Your task to perform on an android device: Add logitech g933 to the cart on amazon.com Image 0: 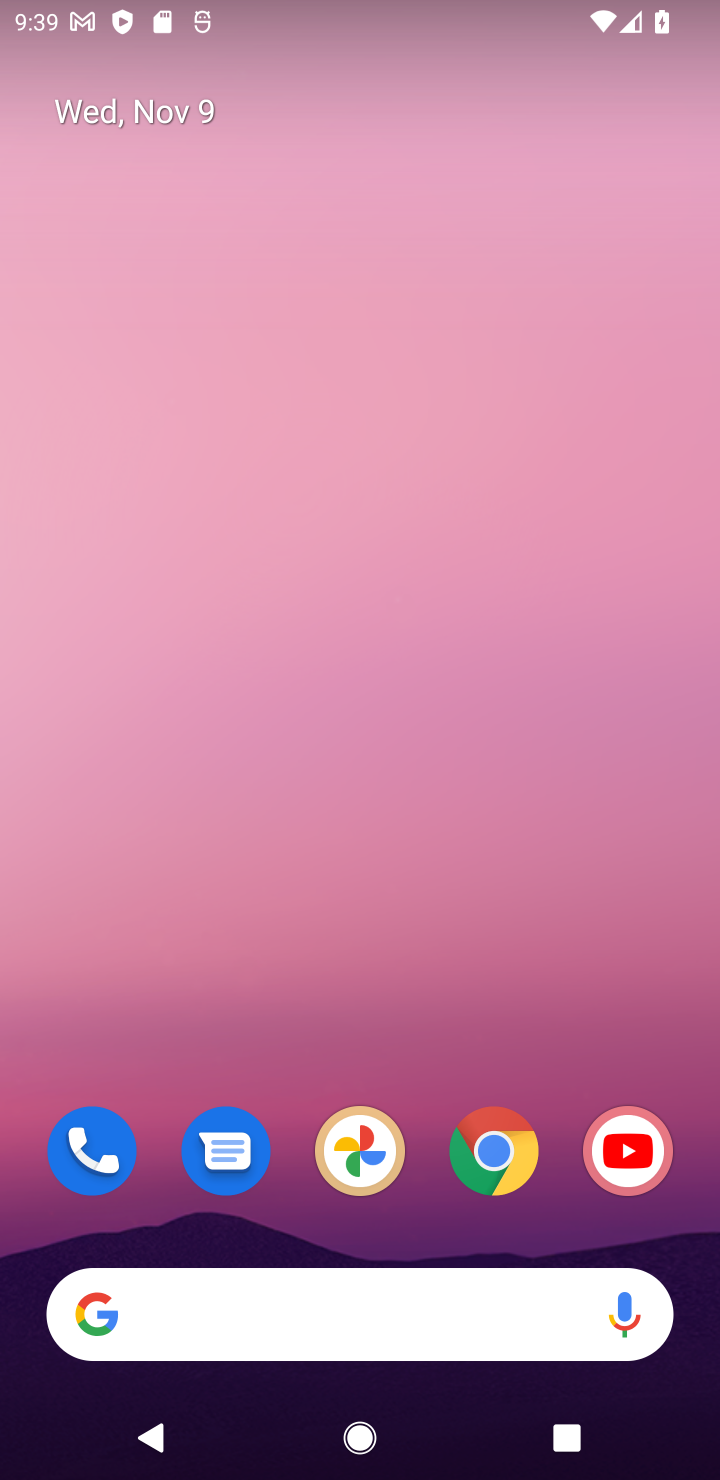
Step 0: click (510, 1176)
Your task to perform on an android device: Add logitech g933 to the cart on amazon.com Image 1: 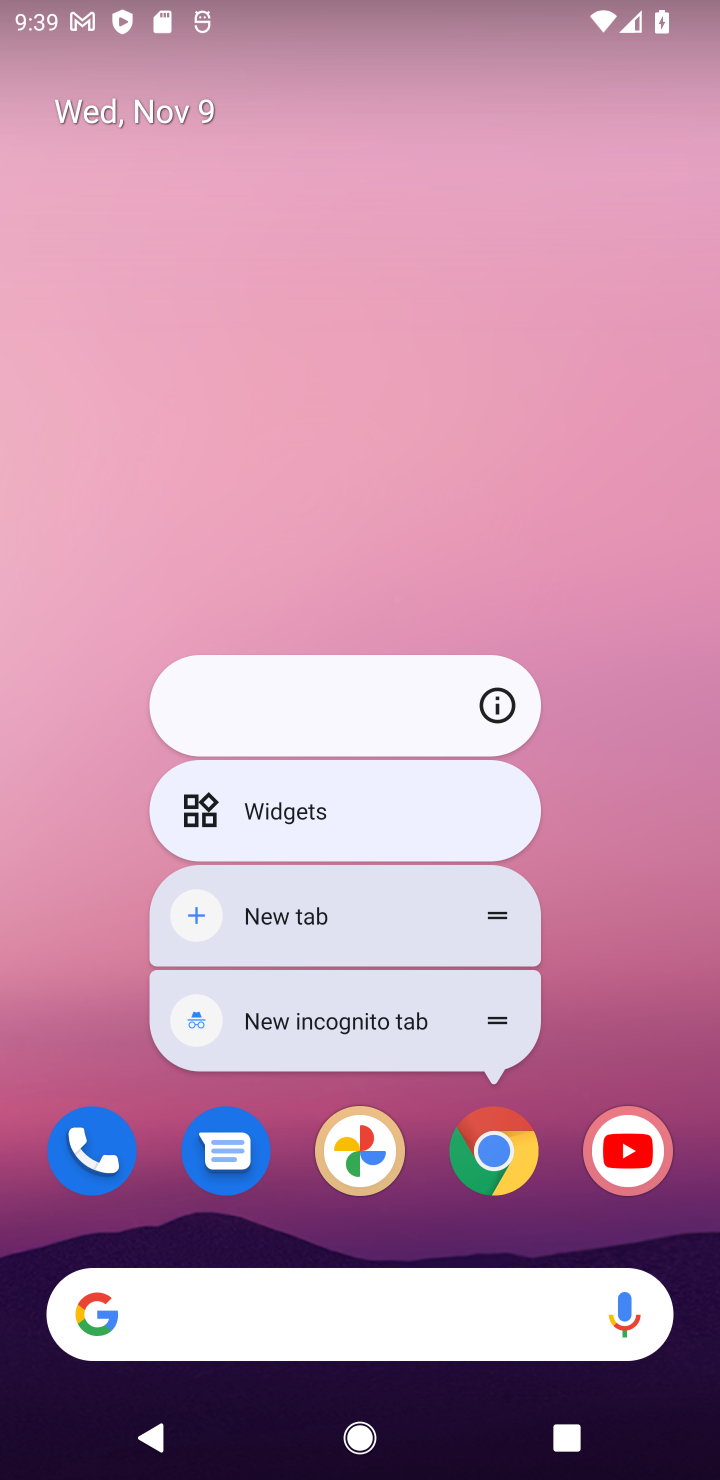
Step 1: click (510, 1176)
Your task to perform on an android device: Add logitech g933 to the cart on amazon.com Image 2: 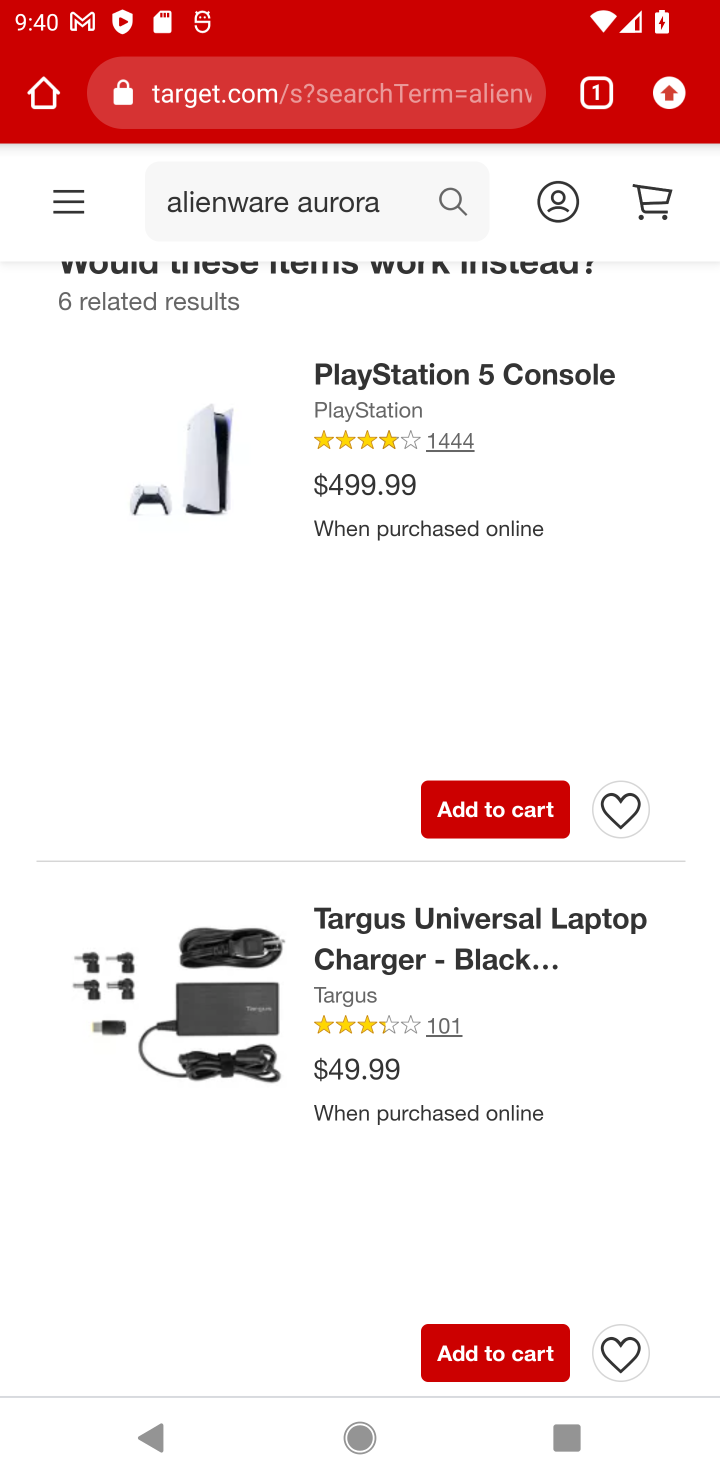
Step 2: click (417, 90)
Your task to perform on an android device: Add logitech g933 to the cart on amazon.com Image 3: 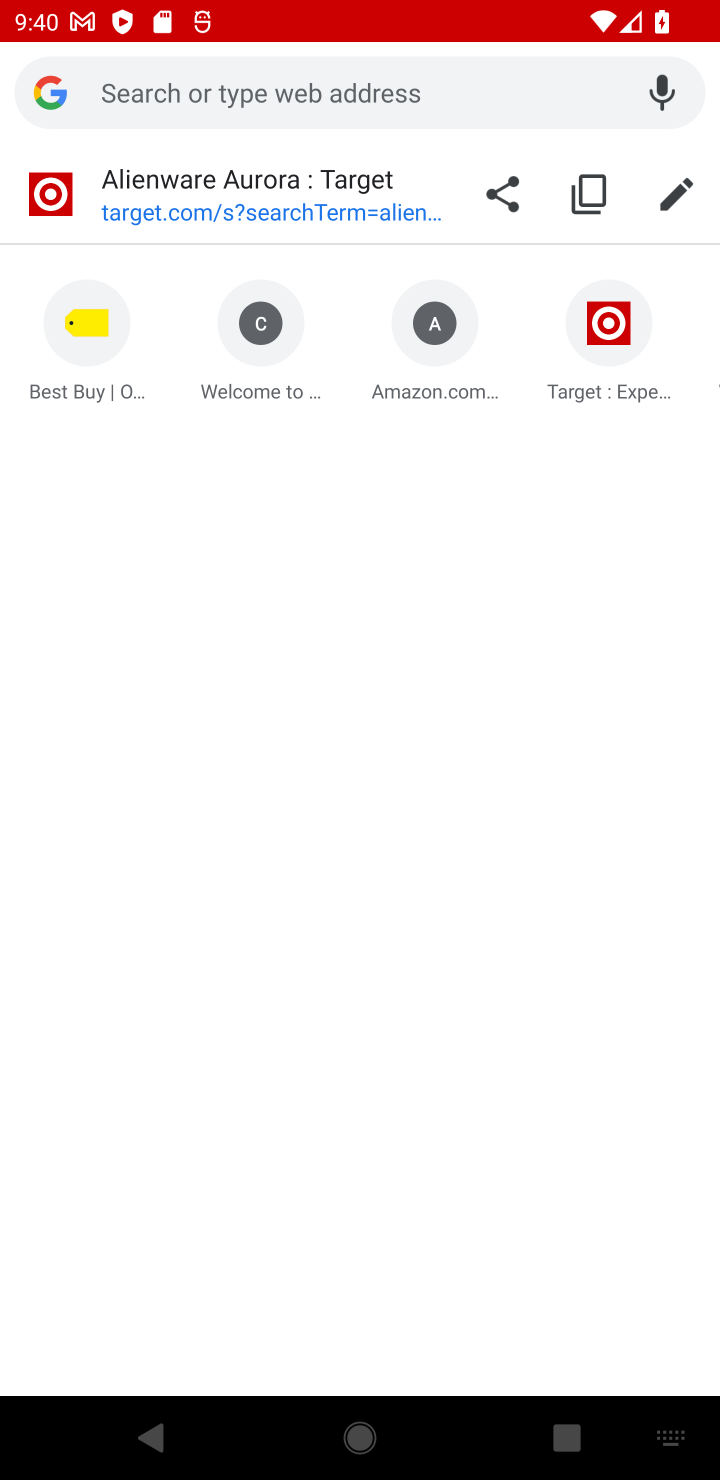
Step 3: type "amazon.com"
Your task to perform on an android device: Add logitech g933 to the cart on amazon.com Image 4: 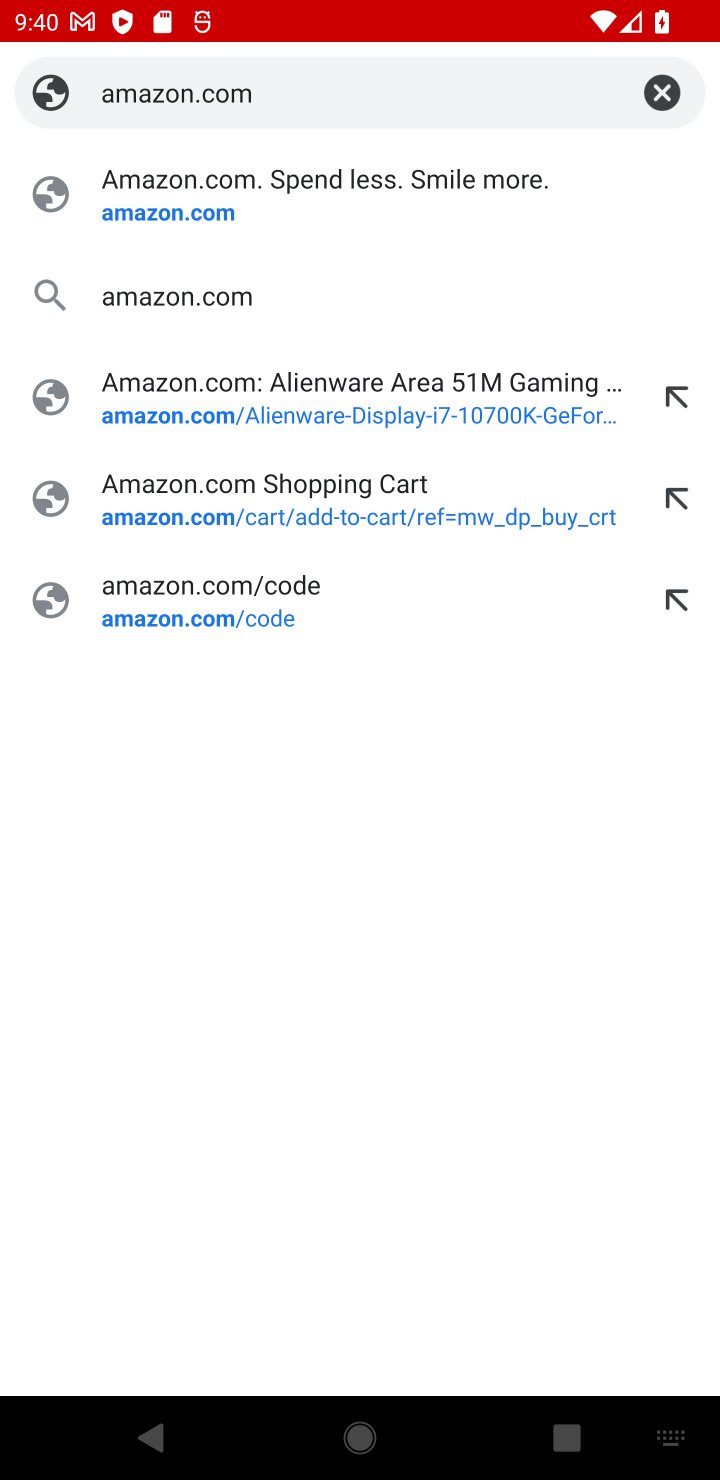
Step 4: click (149, 306)
Your task to perform on an android device: Add logitech g933 to the cart on amazon.com Image 5: 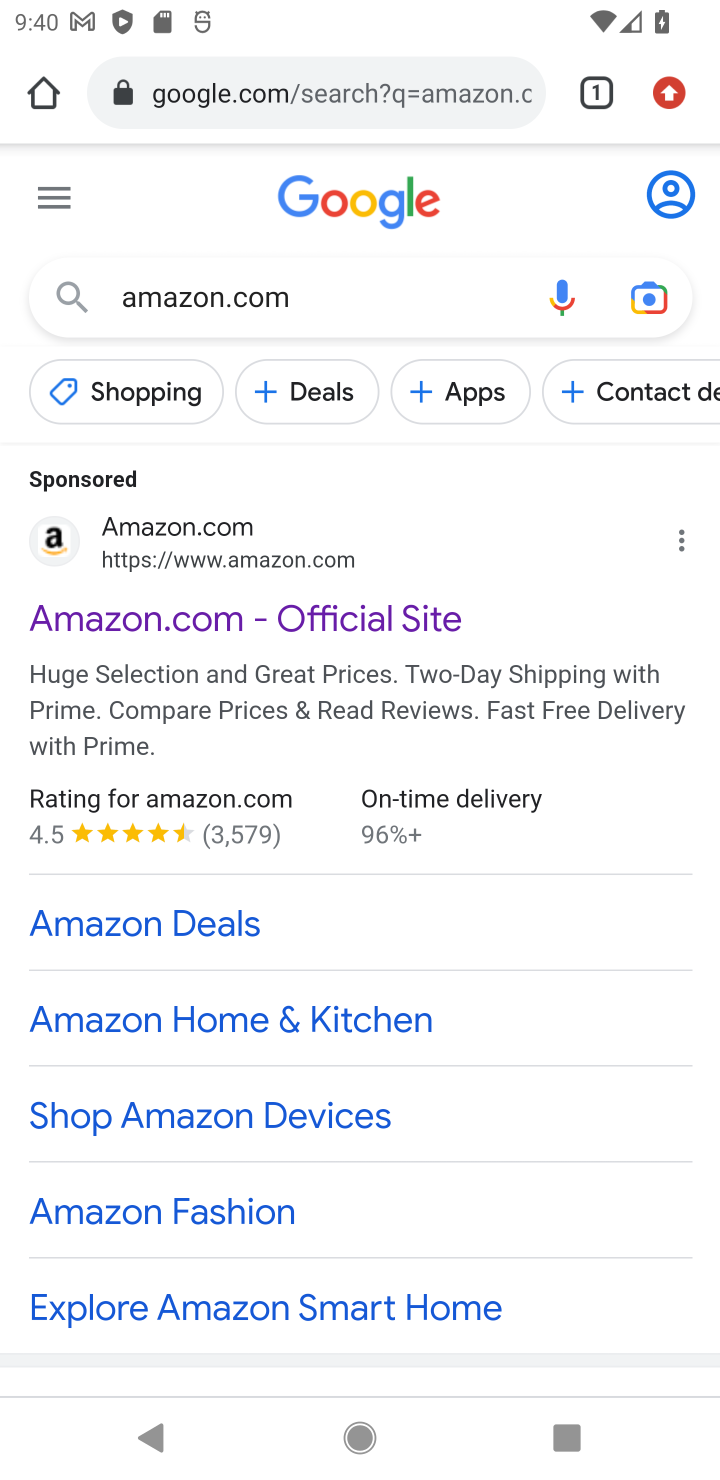
Step 5: click (274, 562)
Your task to perform on an android device: Add logitech g933 to the cart on amazon.com Image 6: 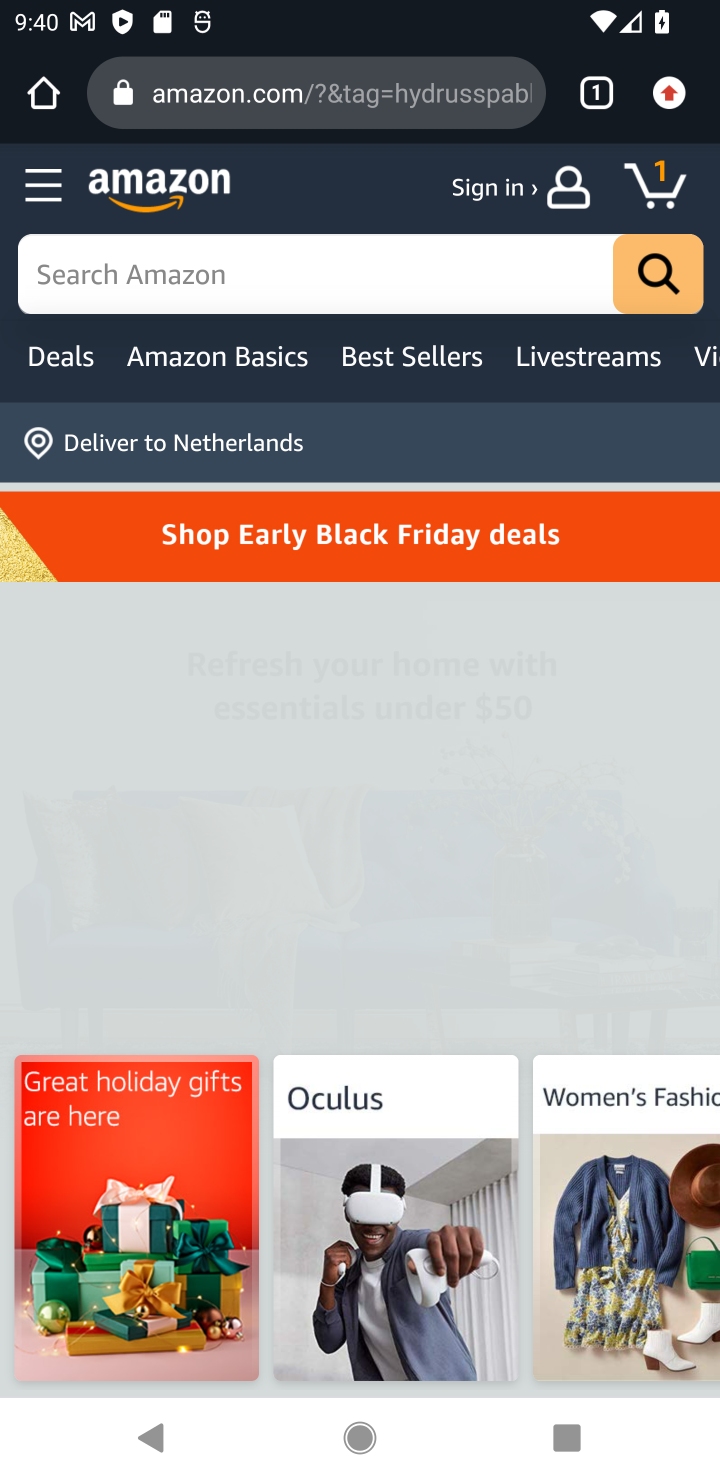
Step 6: click (471, 270)
Your task to perform on an android device: Add logitech g933 to the cart on amazon.com Image 7: 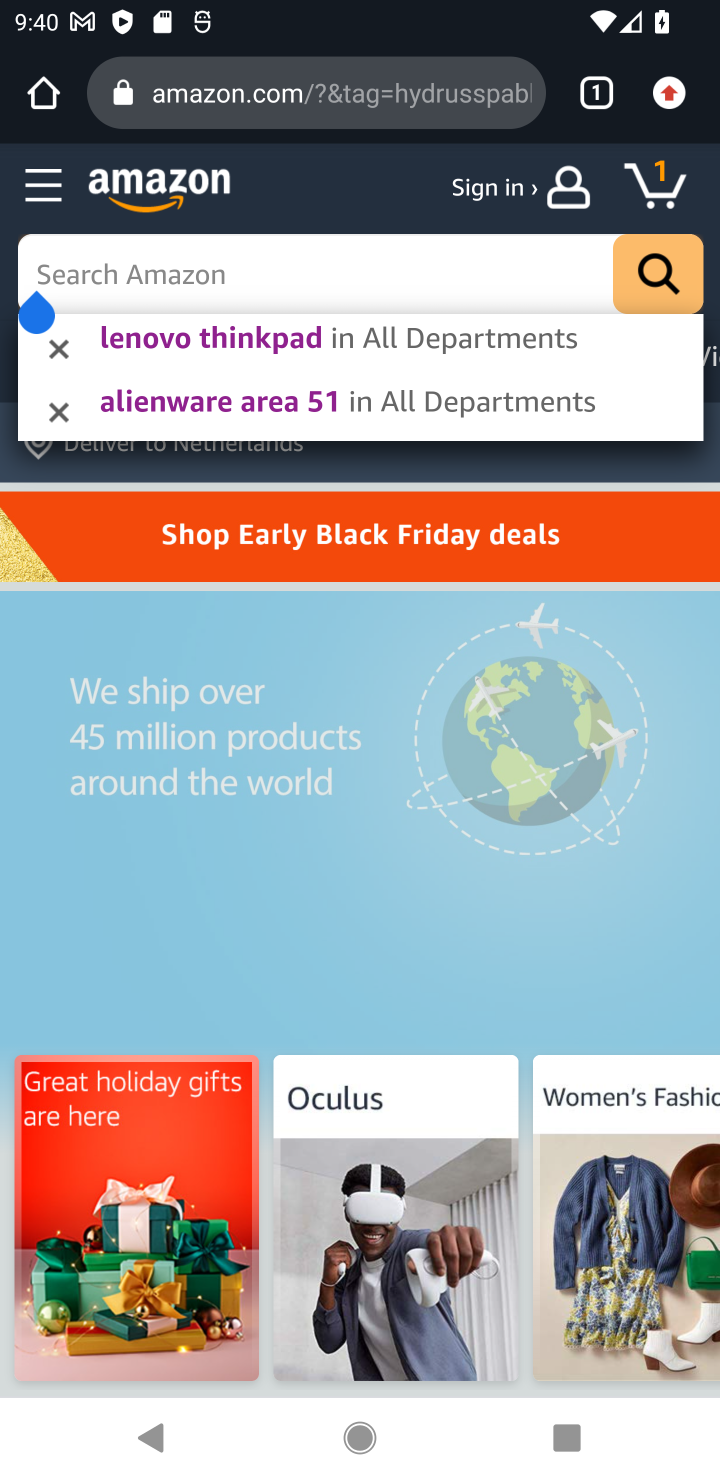
Step 7: type " logitech g933"
Your task to perform on an android device: Add logitech g933 to the cart on amazon.com Image 8: 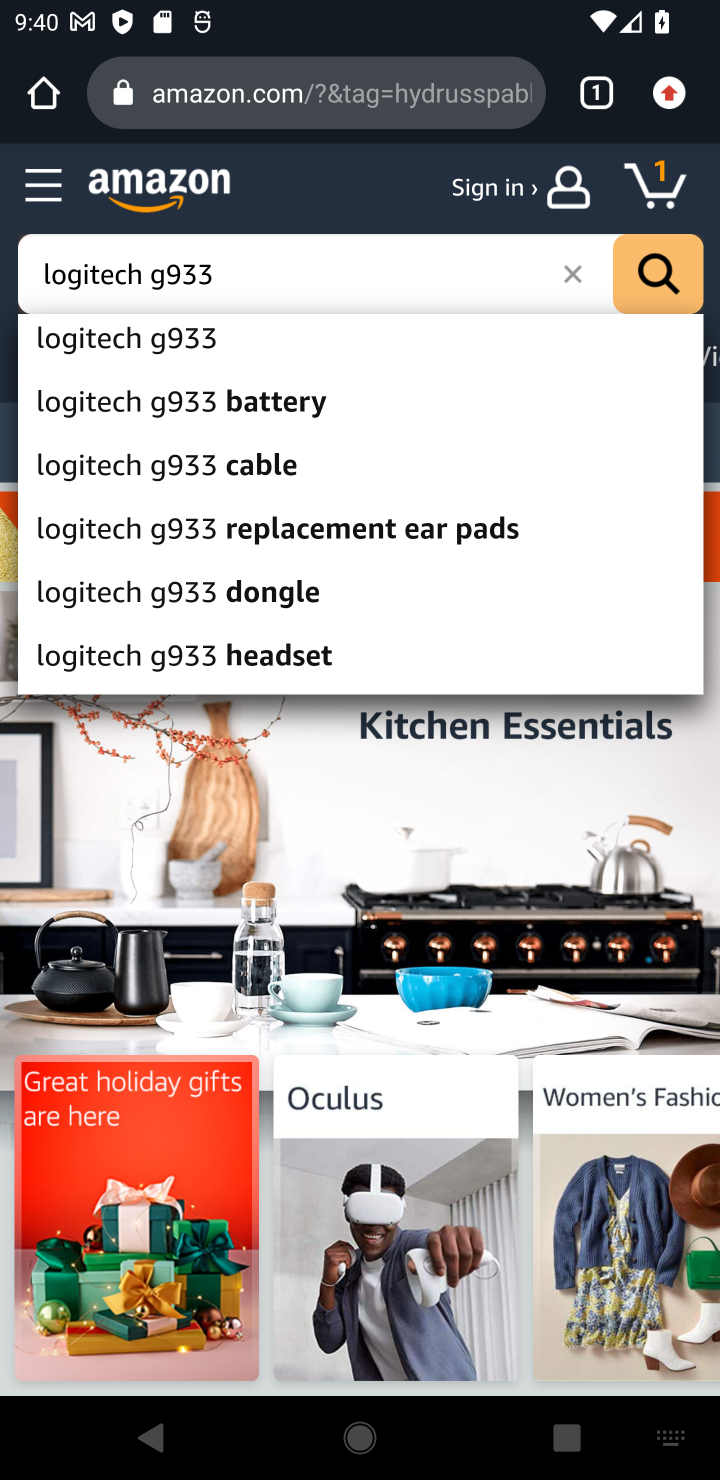
Step 8: click (160, 340)
Your task to perform on an android device: Add logitech g933 to the cart on amazon.com Image 9: 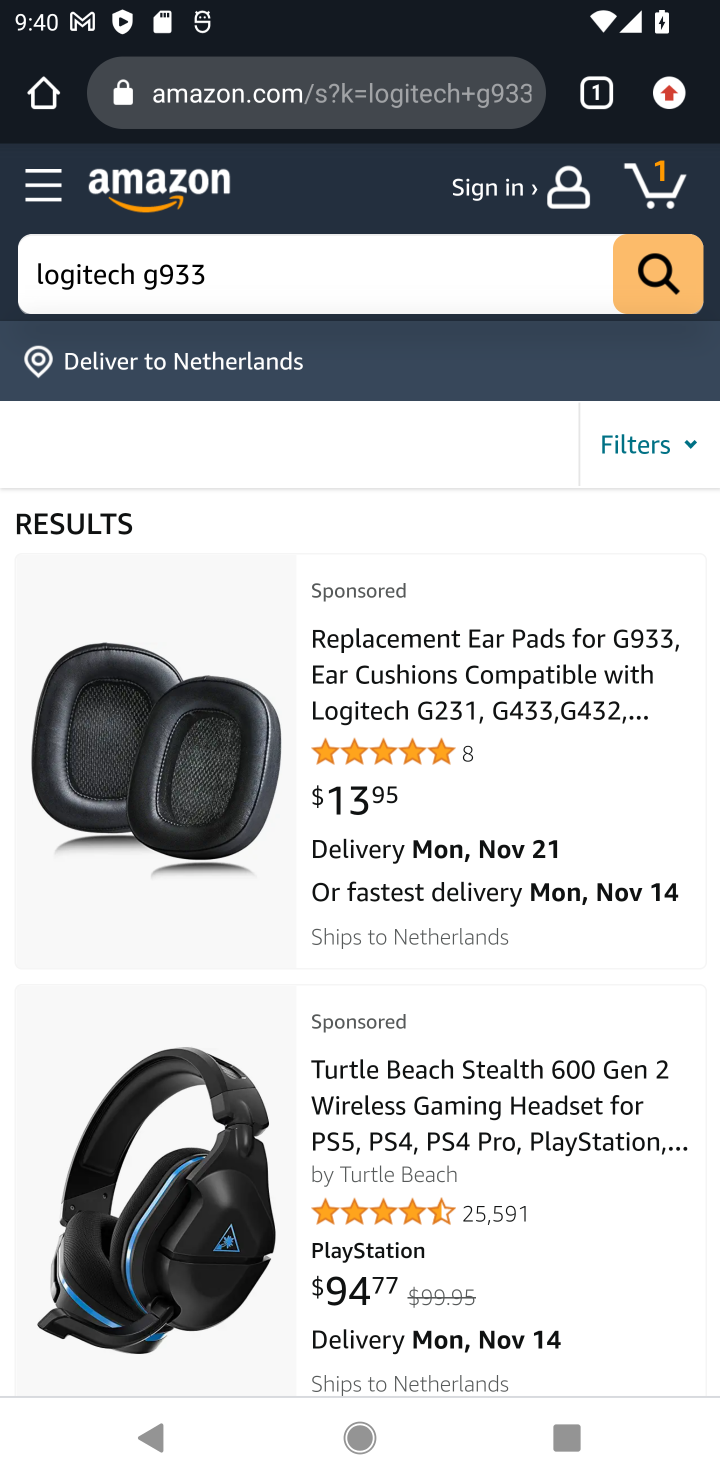
Step 9: drag from (569, 1239) to (604, 540)
Your task to perform on an android device: Add logitech g933 to the cart on amazon.com Image 10: 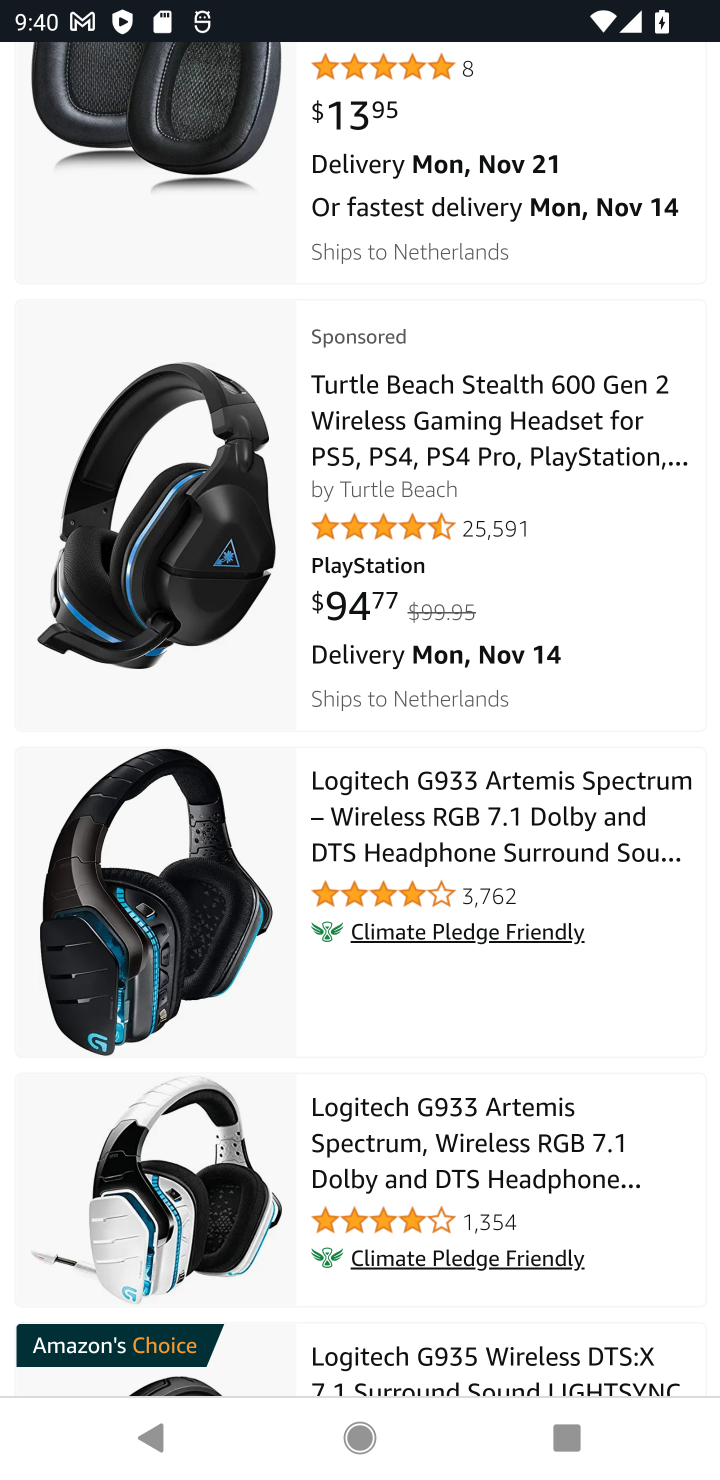
Step 10: click (150, 923)
Your task to perform on an android device: Add logitech g933 to the cart on amazon.com Image 11: 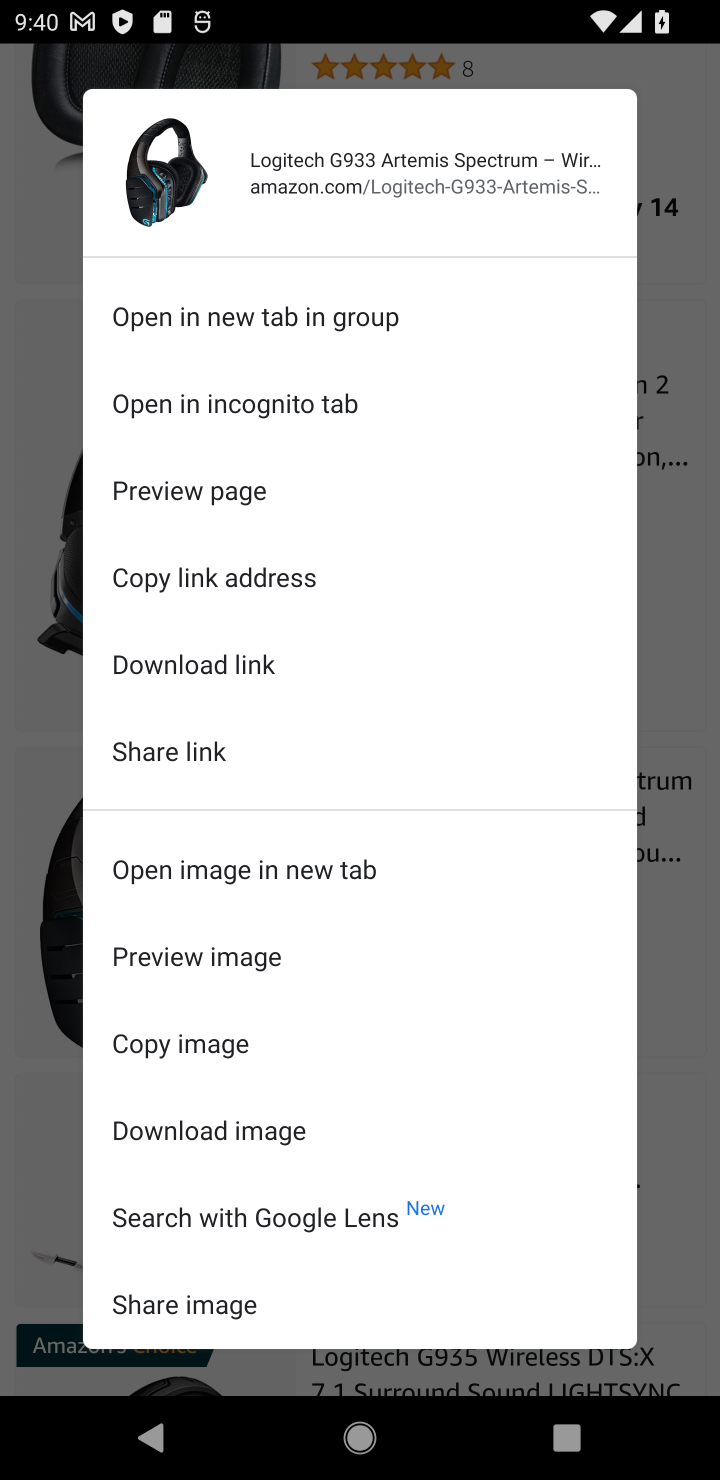
Step 11: click (71, 927)
Your task to perform on an android device: Add logitech g933 to the cart on amazon.com Image 12: 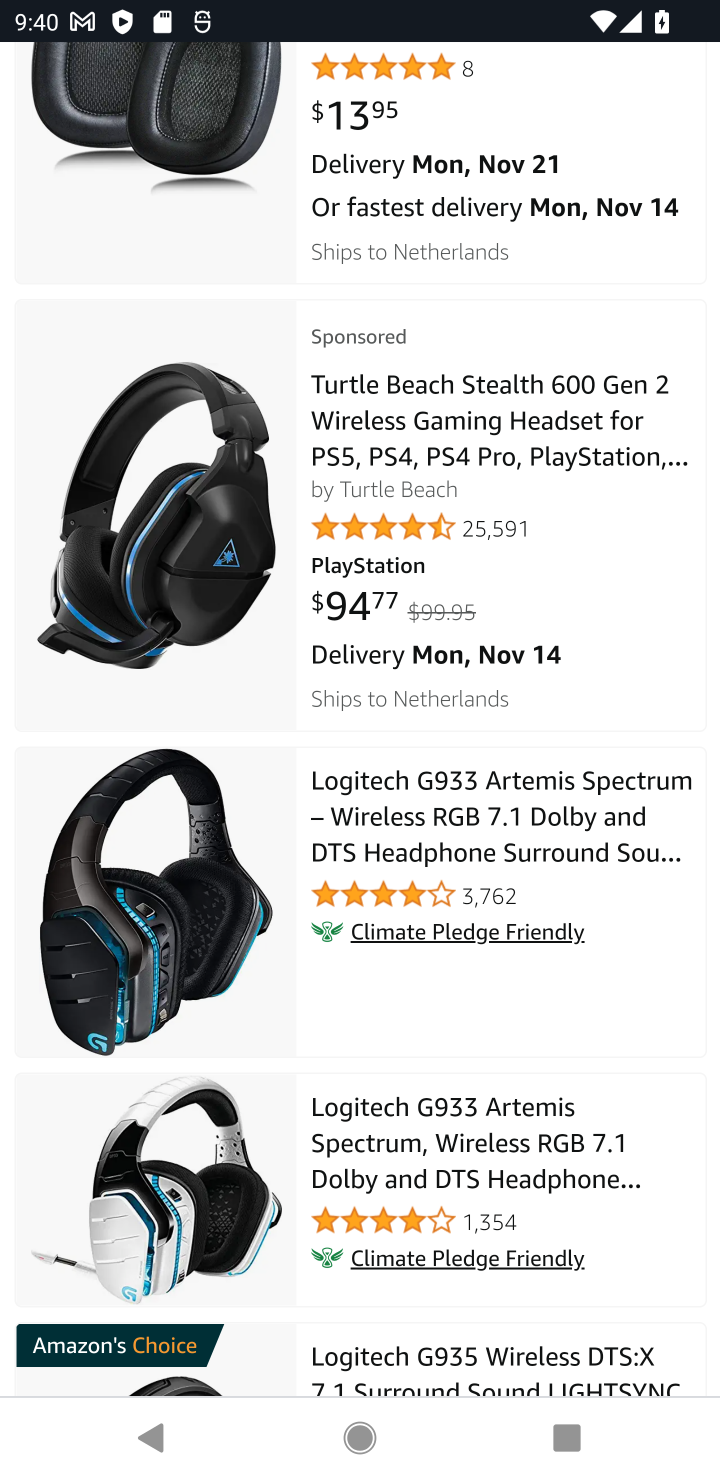
Step 12: click (79, 923)
Your task to perform on an android device: Add logitech g933 to the cart on amazon.com Image 13: 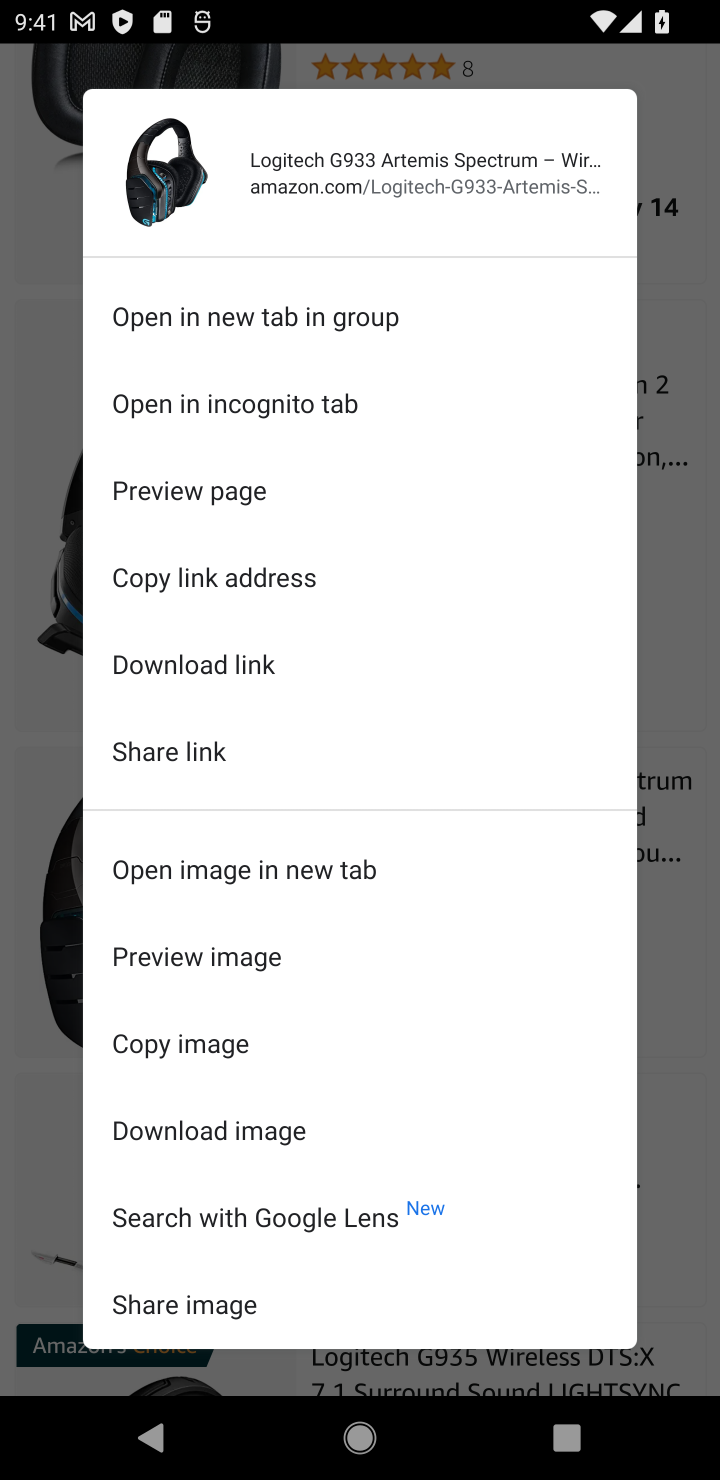
Step 13: click (79, 923)
Your task to perform on an android device: Add logitech g933 to the cart on amazon.com Image 14: 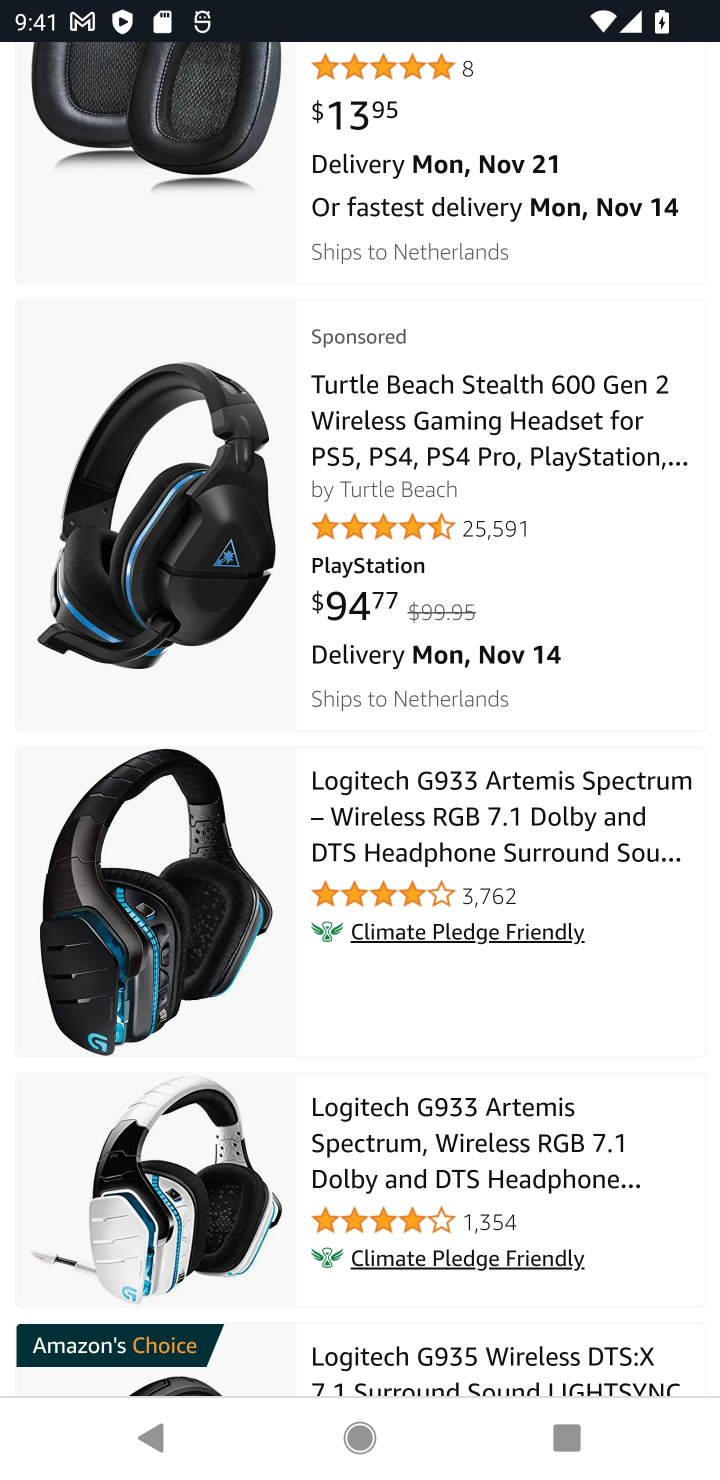
Step 14: click (215, 824)
Your task to perform on an android device: Add logitech g933 to the cart on amazon.com Image 15: 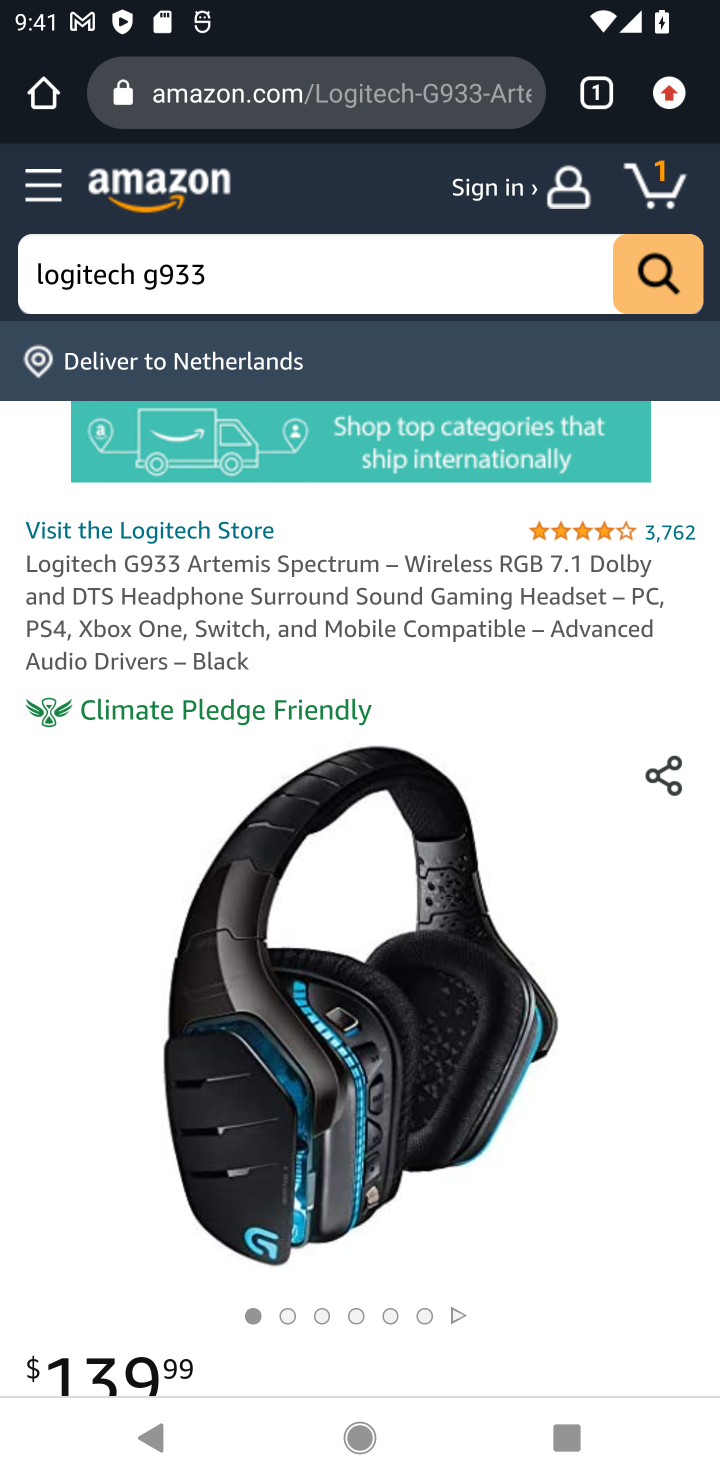
Step 15: drag from (587, 1067) to (567, 375)
Your task to perform on an android device: Add logitech g933 to the cart on amazon.com Image 16: 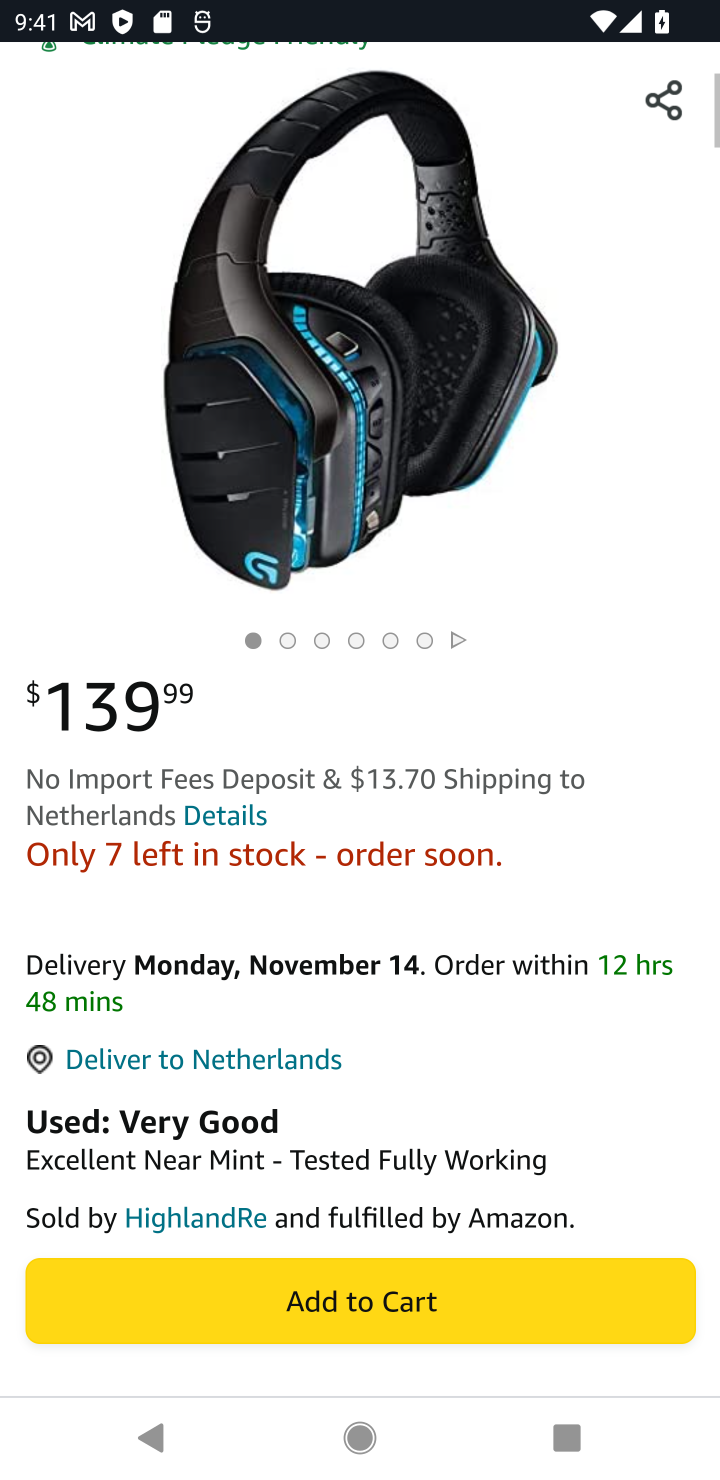
Step 16: drag from (635, 1223) to (643, 733)
Your task to perform on an android device: Add logitech g933 to the cart on amazon.com Image 17: 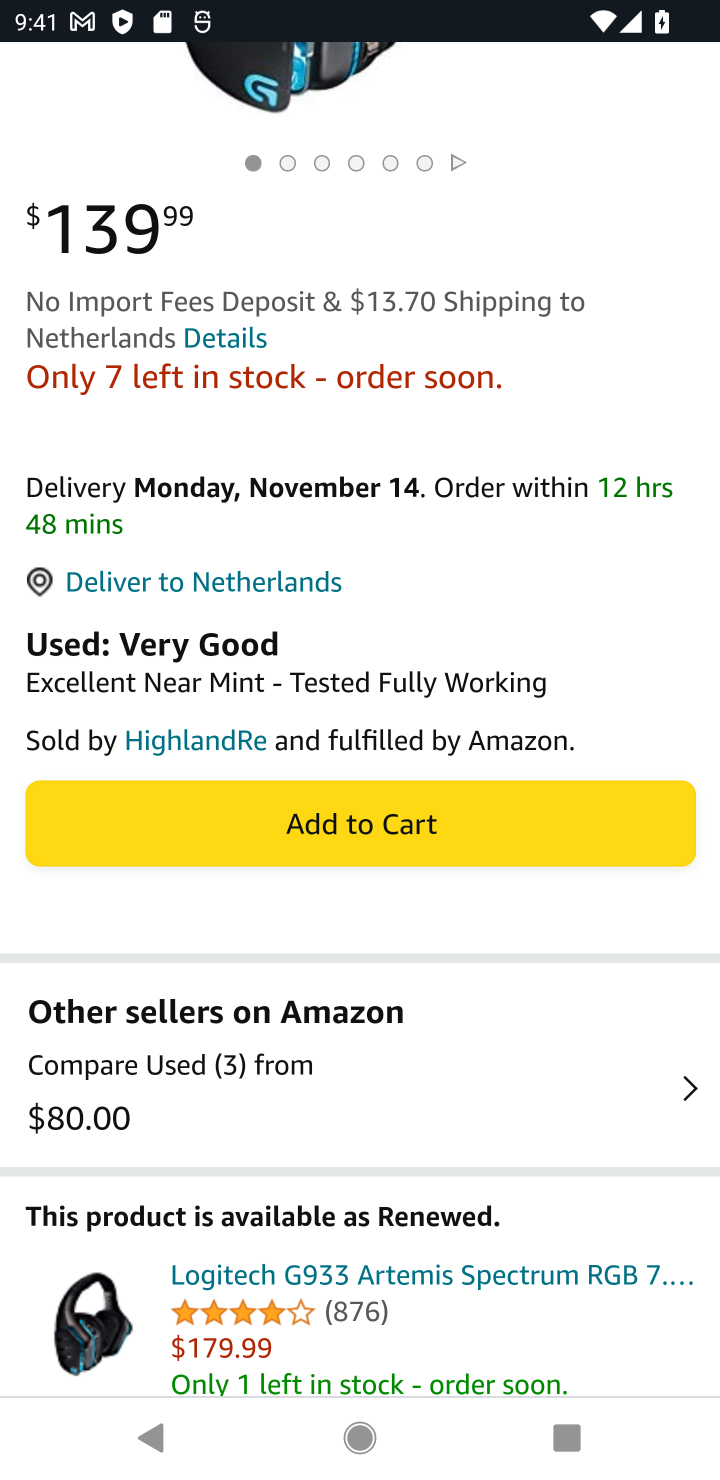
Step 17: click (397, 810)
Your task to perform on an android device: Add logitech g933 to the cart on amazon.com Image 18: 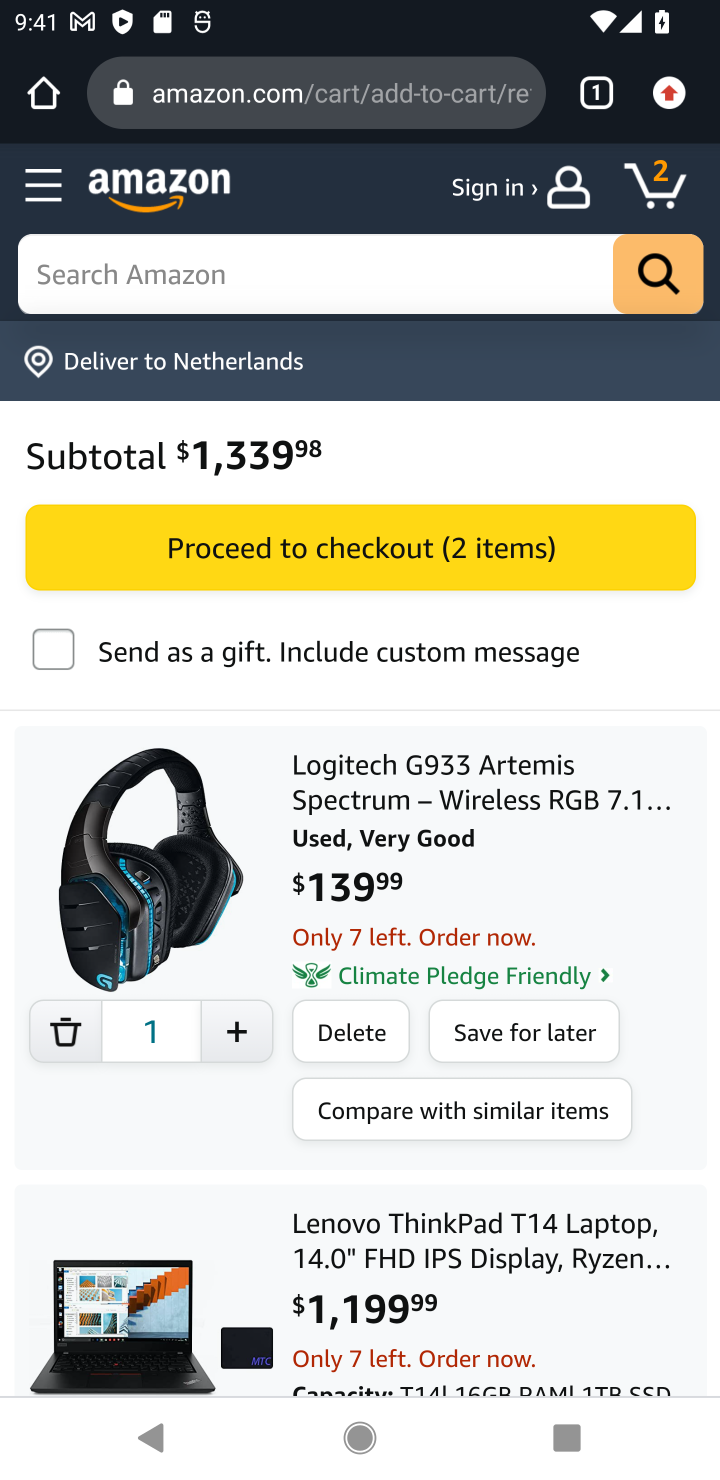
Step 18: task complete